Your task to perform on an android device: Open Google Chrome and click the shortcut for Amazon.com Image 0: 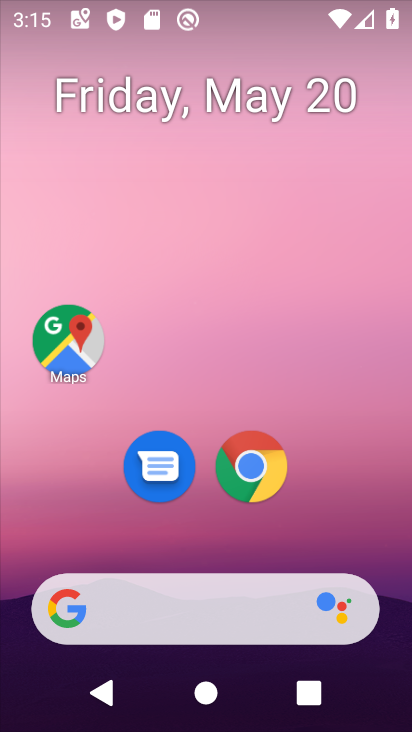
Step 0: click (262, 445)
Your task to perform on an android device: Open Google Chrome and click the shortcut for Amazon.com Image 1: 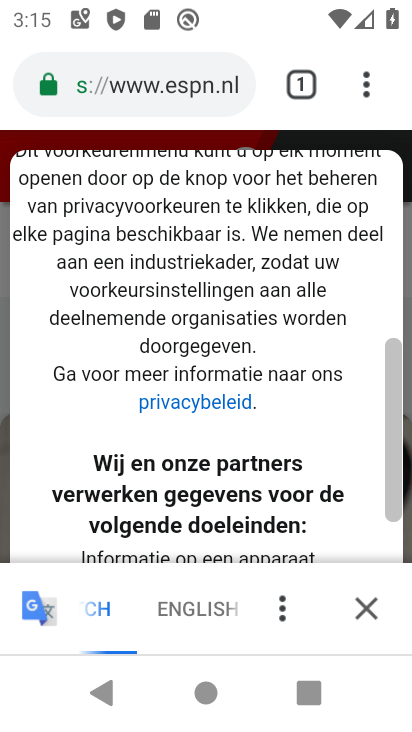
Step 1: click (288, 96)
Your task to perform on an android device: Open Google Chrome and click the shortcut for Amazon.com Image 2: 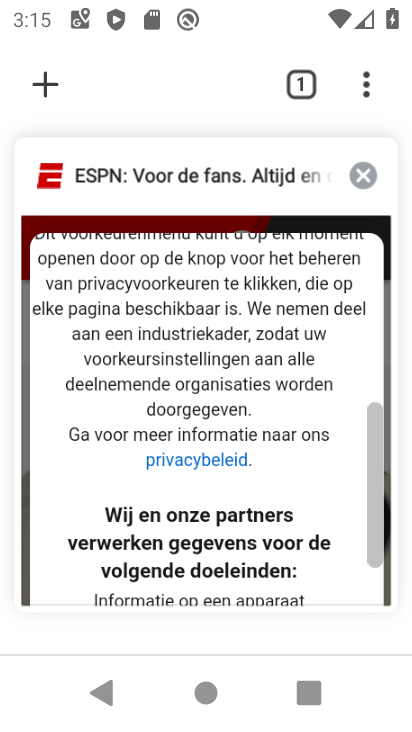
Step 2: click (363, 178)
Your task to perform on an android device: Open Google Chrome and click the shortcut for Amazon.com Image 3: 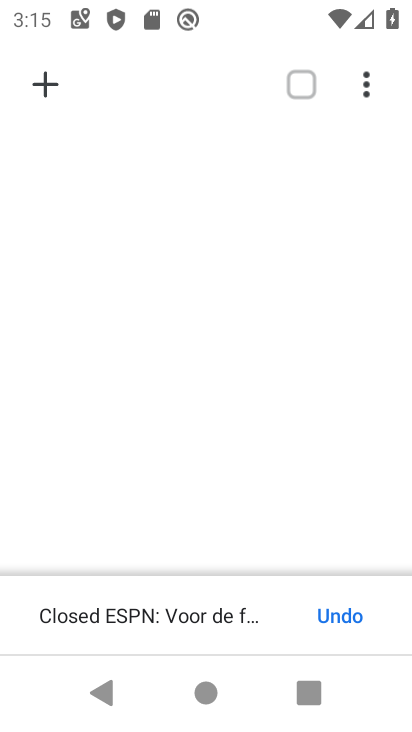
Step 3: click (44, 89)
Your task to perform on an android device: Open Google Chrome and click the shortcut for Amazon.com Image 4: 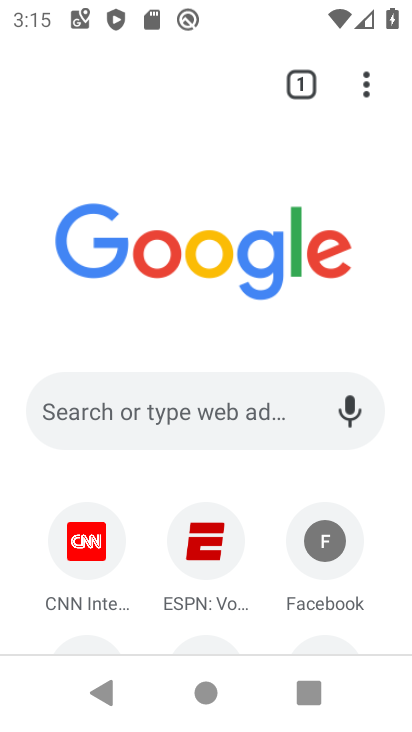
Step 4: drag from (129, 262) to (129, 228)
Your task to perform on an android device: Open Google Chrome and click the shortcut for Amazon.com Image 5: 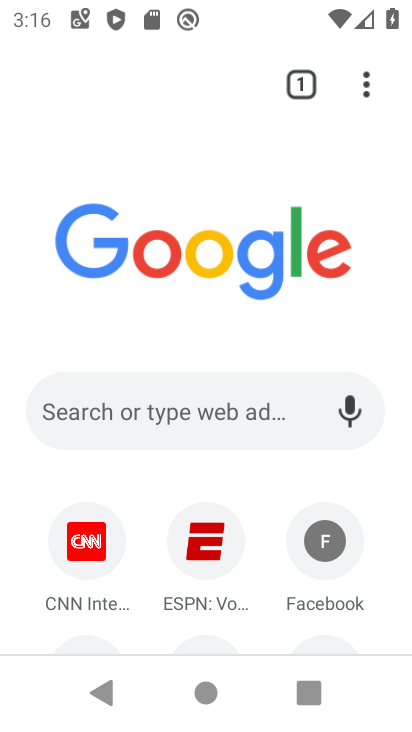
Step 5: drag from (235, 612) to (235, 252)
Your task to perform on an android device: Open Google Chrome and click the shortcut for Amazon.com Image 6: 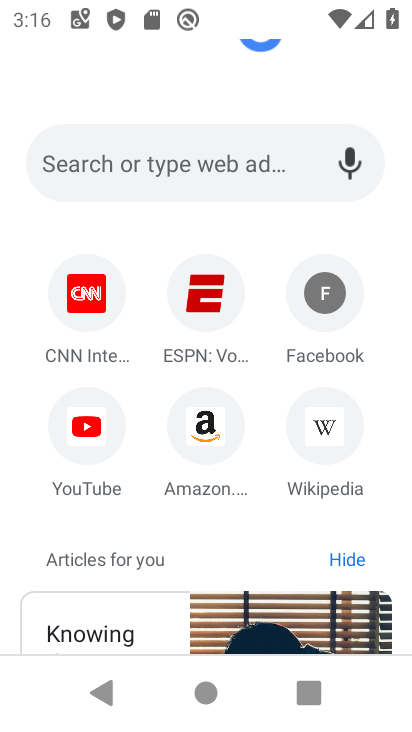
Step 6: click (202, 434)
Your task to perform on an android device: Open Google Chrome and click the shortcut for Amazon.com Image 7: 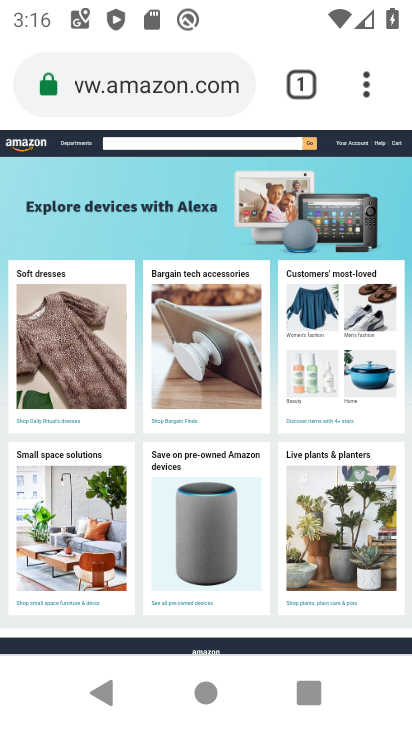
Step 7: task complete